Your task to perform on an android device: Open battery settings Image 0: 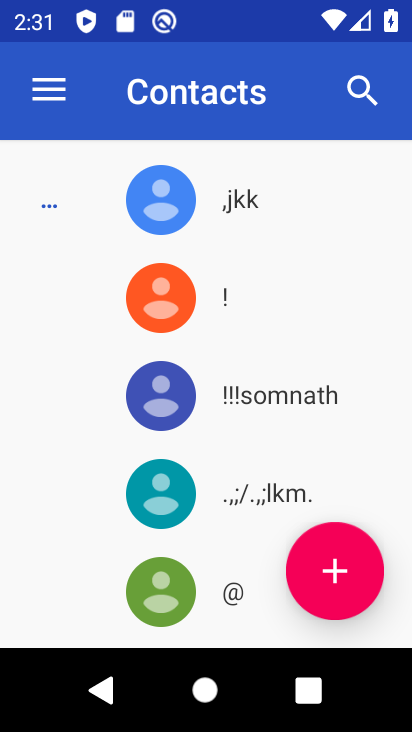
Step 0: press home button
Your task to perform on an android device: Open battery settings Image 1: 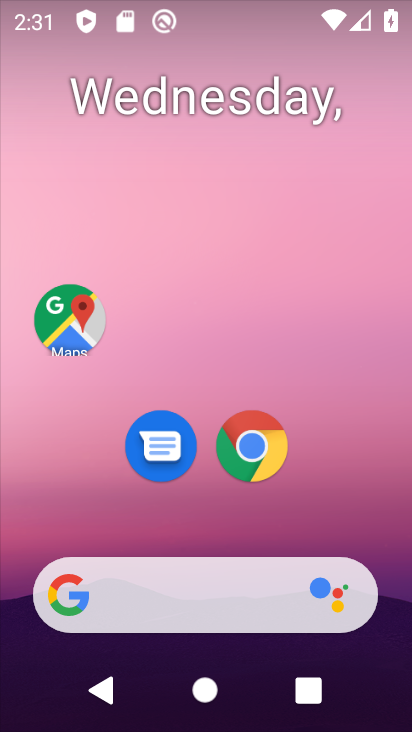
Step 1: drag from (344, 510) to (340, 5)
Your task to perform on an android device: Open battery settings Image 2: 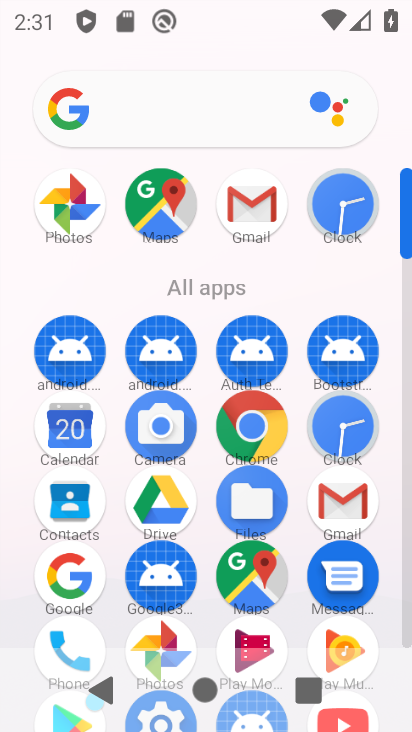
Step 2: drag from (211, 526) to (251, 168)
Your task to perform on an android device: Open battery settings Image 3: 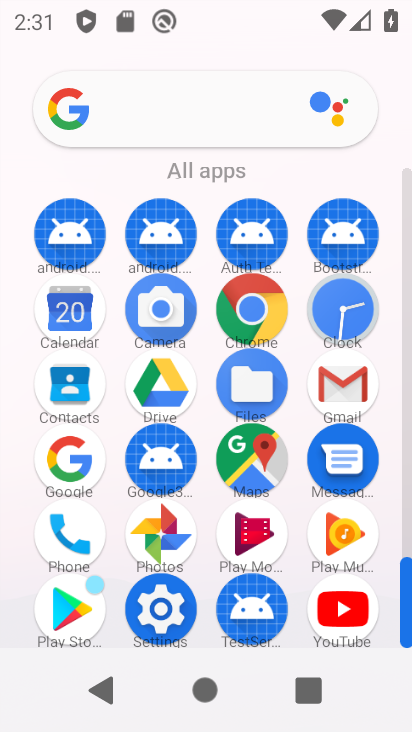
Step 3: click (161, 611)
Your task to perform on an android device: Open battery settings Image 4: 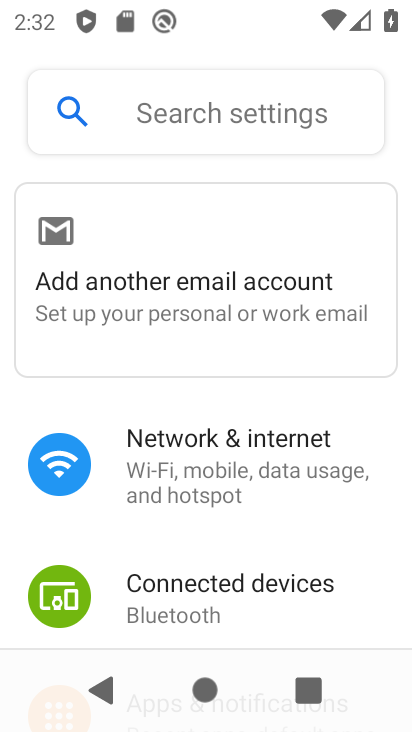
Step 4: drag from (287, 501) to (350, 298)
Your task to perform on an android device: Open battery settings Image 5: 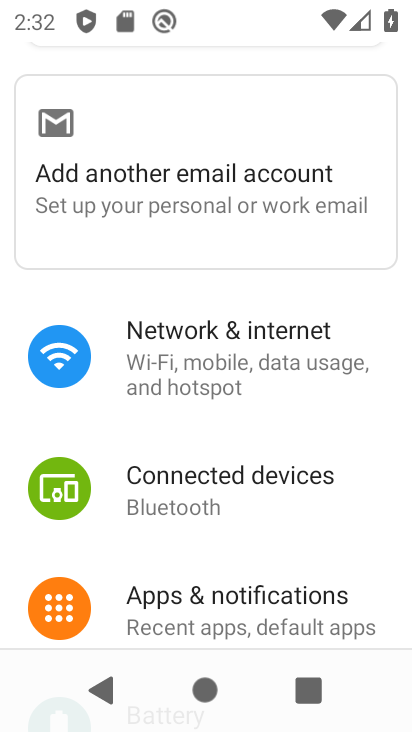
Step 5: drag from (228, 534) to (273, 383)
Your task to perform on an android device: Open battery settings Image 6: 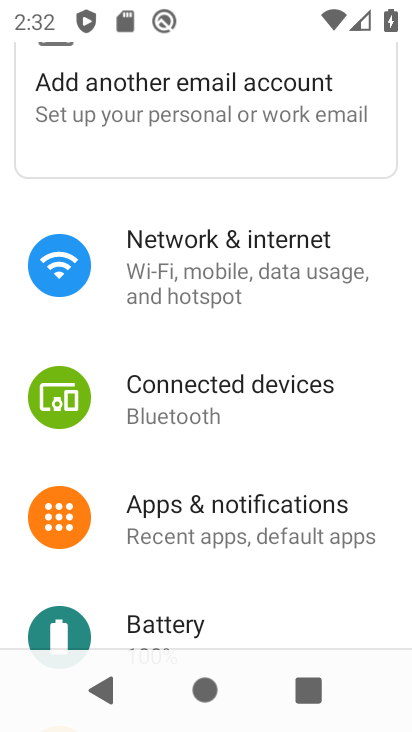
Step 6: drag from (249, 589) to (304, 379)
Your task to perform on an android device: Open battery settings Image 7: 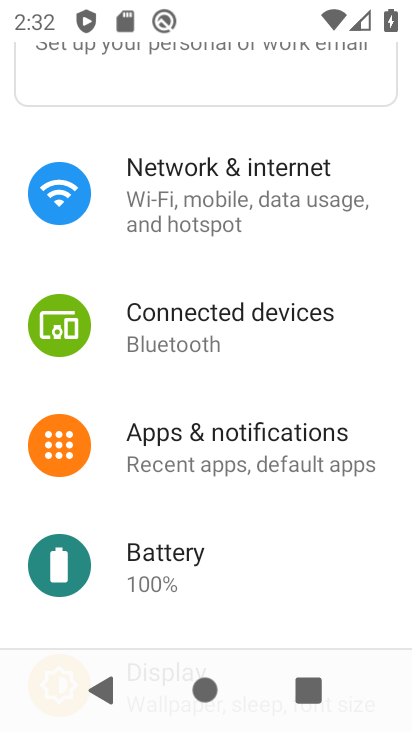
Step 7: click (180, 551)
Your task to perform on an android device: Open battery settings Image 8: 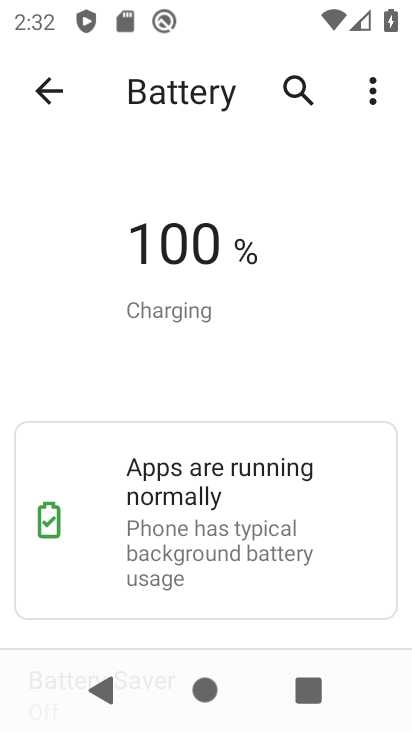
Step 8: task complete